Your task to perform on an android device: turn off sleep mode Image 0: 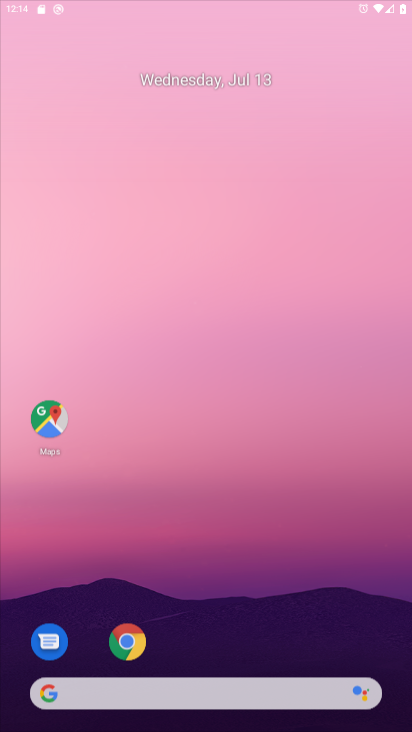
Step 0: drag from (201, 697) to (174, 219)
Your task to perform on an android device: turn off sleep mode Image 1: 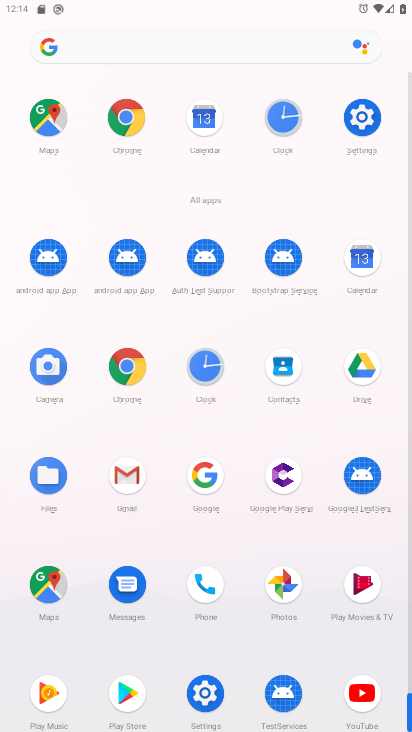
Step 1: drag from (204, 468) to (224, 272)
Your task to perform on an android device: turn off sleep mode Image 2: 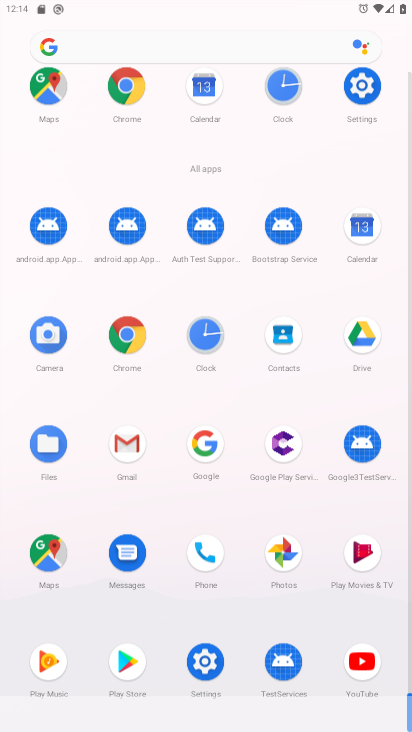
Step 2: drag from (241, 411) to (230, 317)
Your task to perform on an android device: turn off sleep mode Image 3: 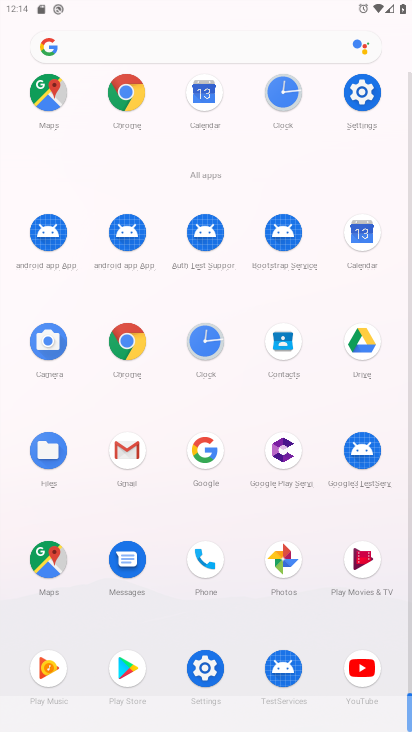
Step 3: drag from (245, 612) to (206, 276)
Your task to perform on an android device: turn off sleep mode Image 4: 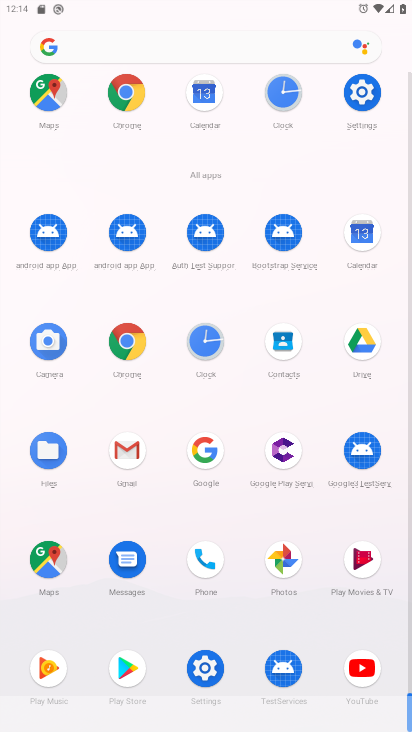
Step 4: click (363, 78)
Your task to perform on an android device: turn off sleep mode Image 5: 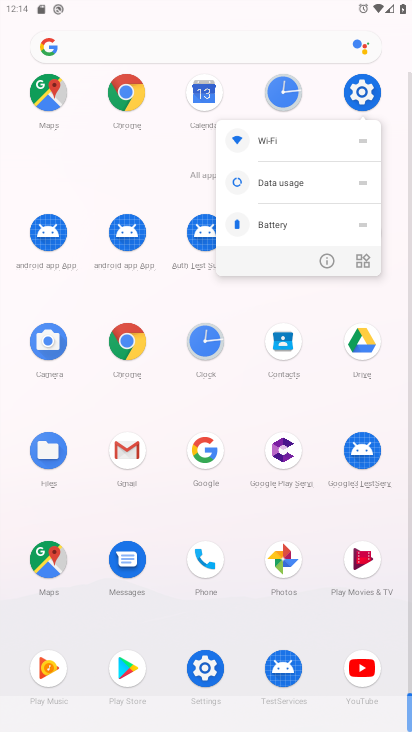
Step 5: click (372, 90)
Your task to perform on an android device: turn off sleep mode Image 6: 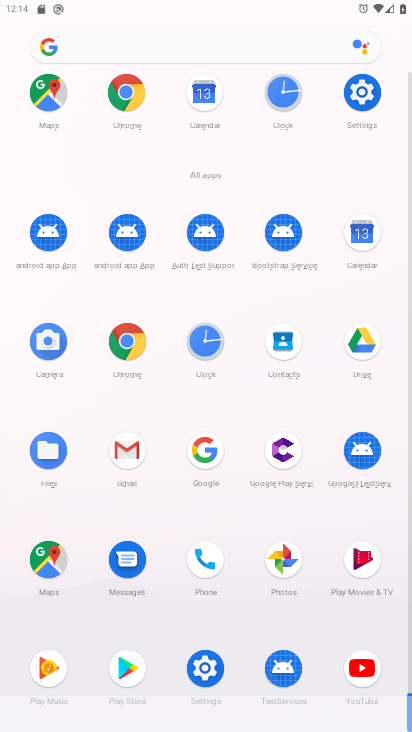
Step 6: click (358, 102)
Your task to perform on an android device: turn off sleep mode Image 7: 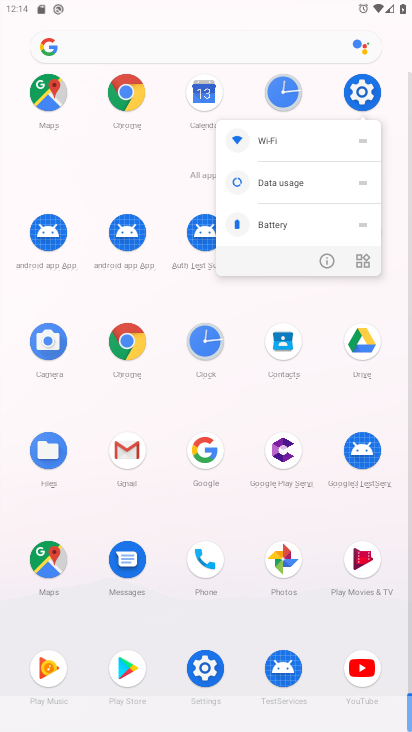
Step 7: click (363, 97)
Your task to perform on an android device: turn off sleep mode Image 8: 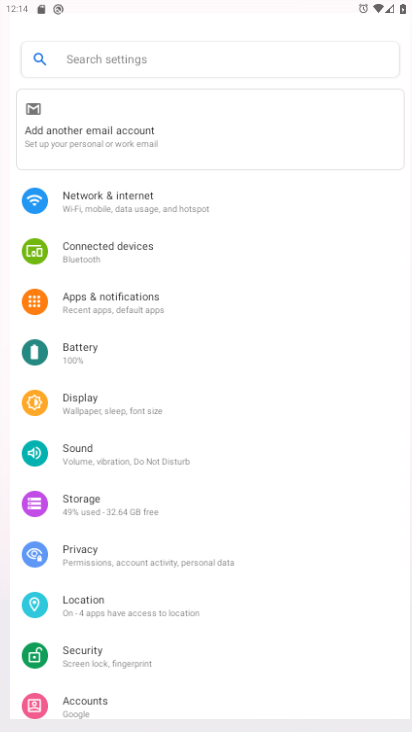
Step 8: click (364, 93)
Your task to perform on an android device: turn off sleep mode Image 9: 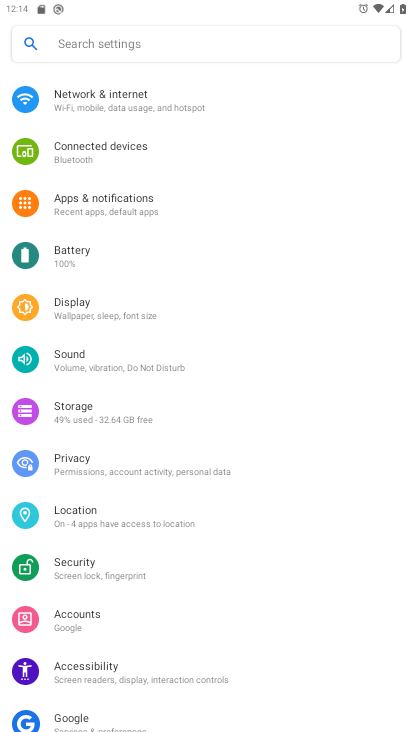
Step 9: click (363, 90)
Your task to perform on an android device: turn off sleep mode Image 10: 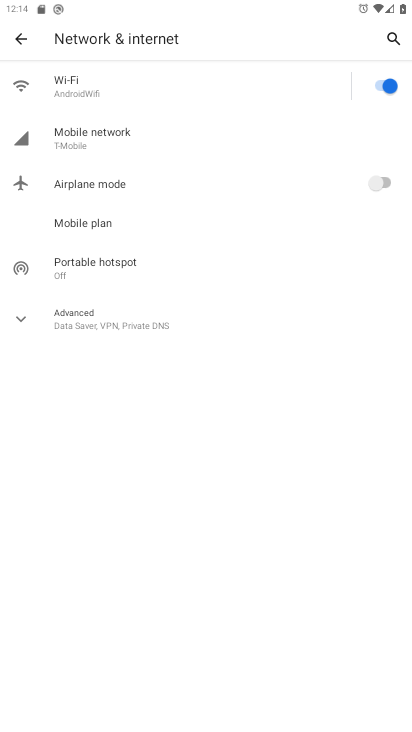
Step 10: click (19, 39)
Your task to perform on an android device: turn off sleep mode Image 11: 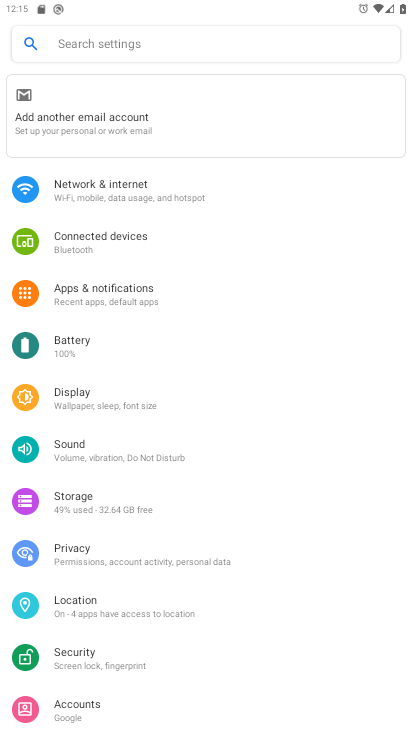
Step 11: click (77, 396)
Your task to perform on an android device: turn off sleep mode Image 12: 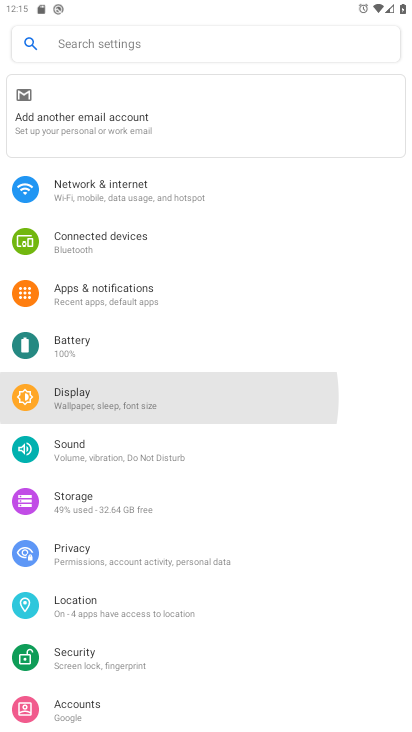
Step 12: click (78, 397)
Your task to perform on an android device: turn off sleep mode Image 13: 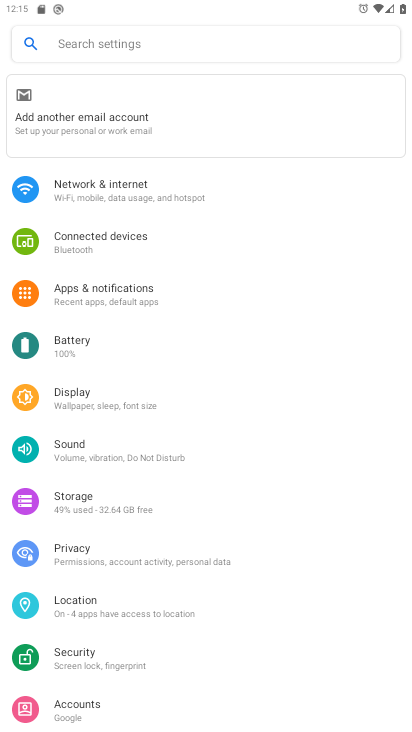
Step 13: click (80, 397)
Your task to perform on an android device: turn off sleep mode Image 14: 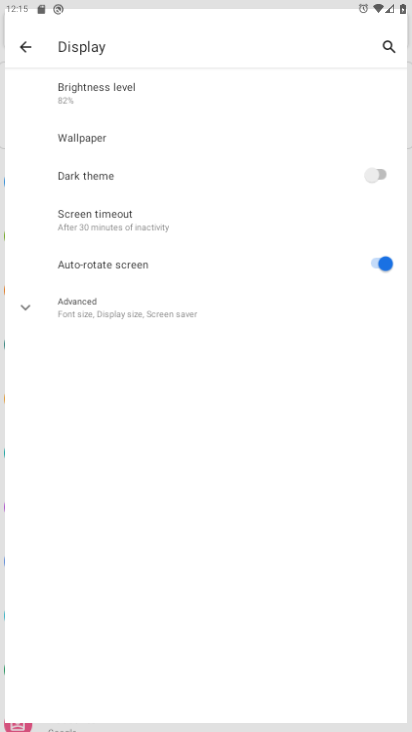
Step 14: click (83, 397)
Your task to perform on an android device: turn off sleep mode Image 15: 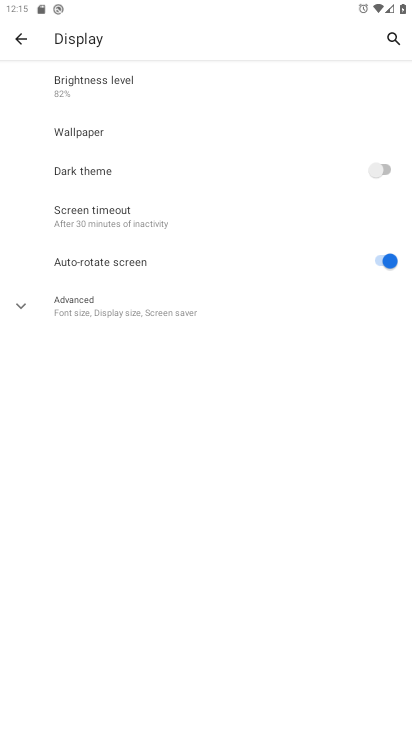
Step 15: click (94, 214)
Your task to perform on an android device: turn off sleep mode Image 16: 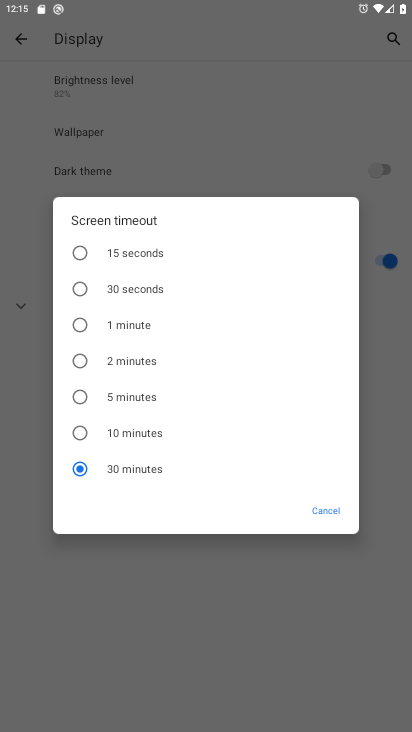
Step 16: task complete